Your task to perform on an android device: Show me the alarms in the clock app Image 0: 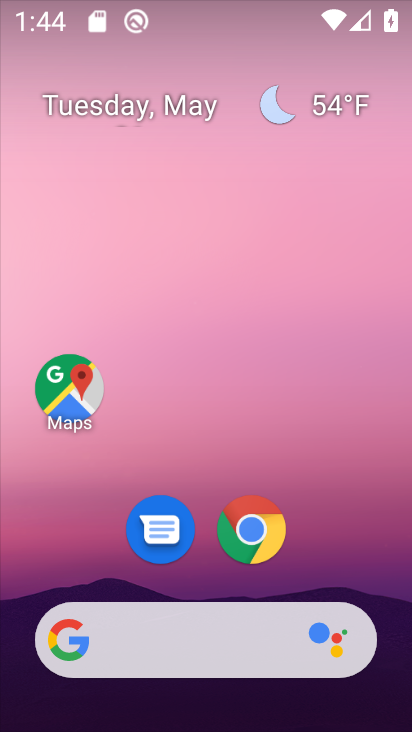
Step 0: click (319, 191)
Your task to perform on an android device: Show me the alarms in the clock app Image 1: 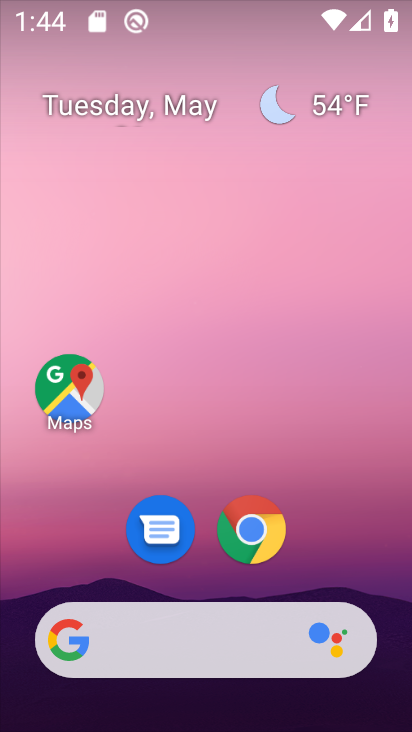
Step 1: drag from (201, 550) to (211, 258)
Your task to perform on an android device: Show me the alarms in the clock app Image 2: 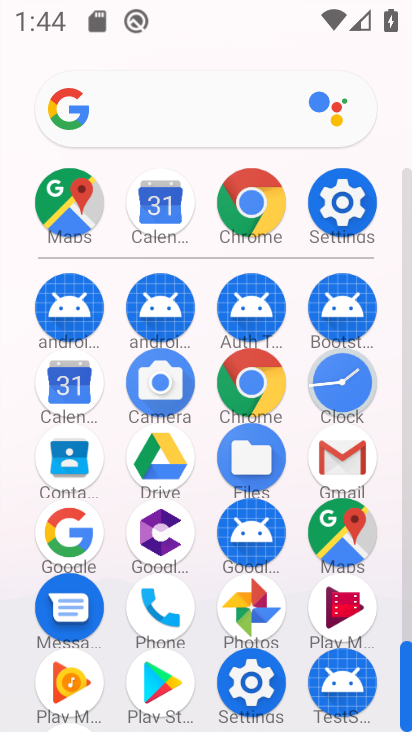
Step 2: click (337, 372)
Your task to perform on an android device: Show me the alarms in the clock app Image 3: 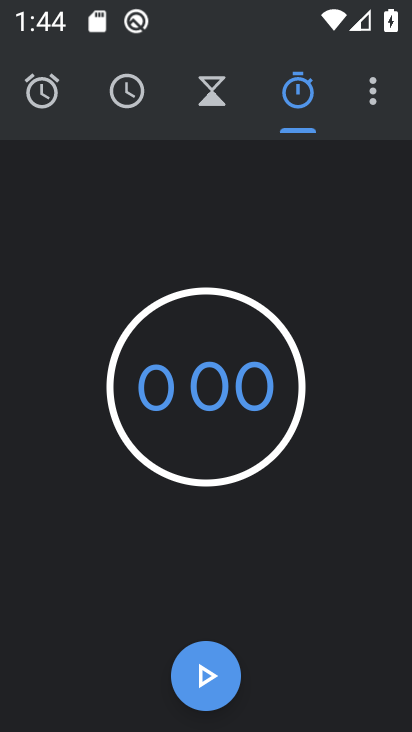
Step 3: click (38, 93)
Your task to perform on an android device: Show me the alarms in the clock app Image 4: 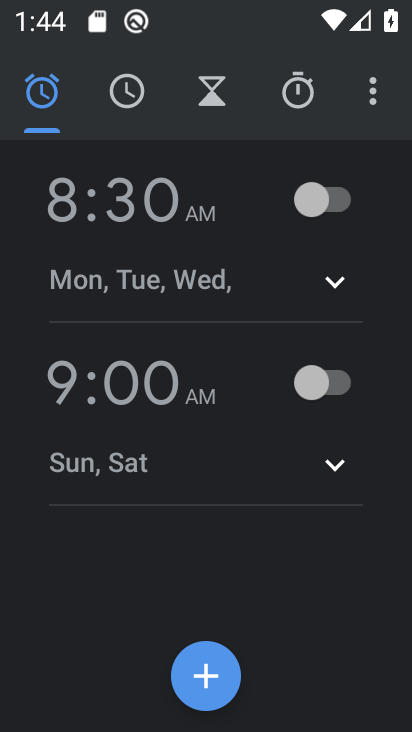
Step 4: task complete